Your task to perform on an android device: Go to CNN.com Image 0: 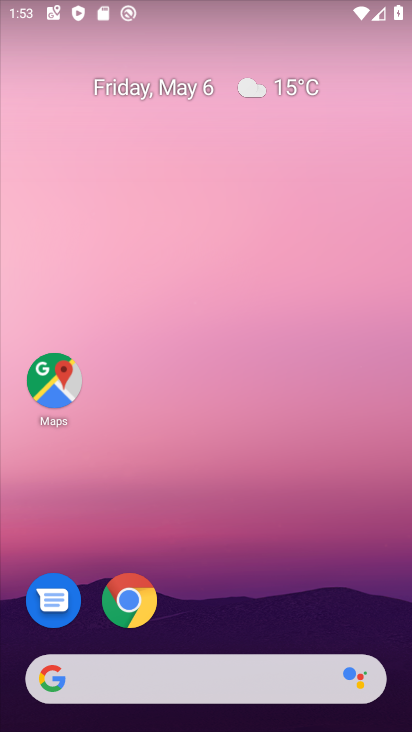
Step 0: drag from (341, 604) to (273, 29)
Your task to perform on an android device: Go to CNN.com Image 1: 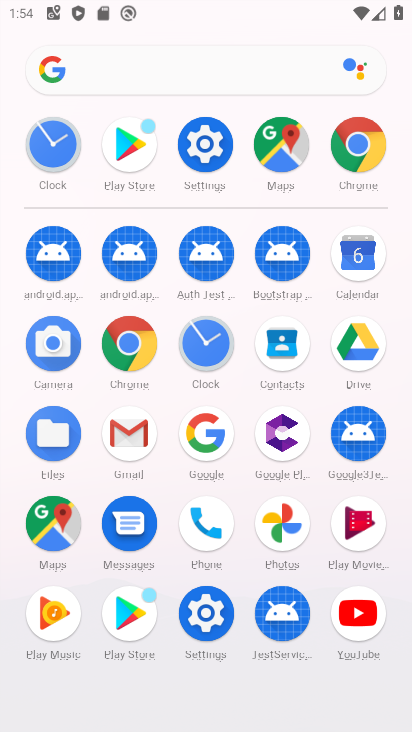
Step 1: click (361, 146)
Your task to perform on an android device: Go to CNN.com Image 2: 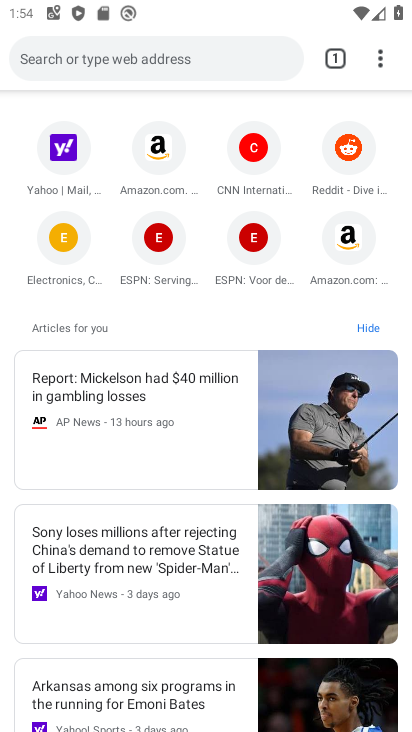
Step 2: click (143, 55)
Your task to perform on an android device: Go to CNN.com Image 3: 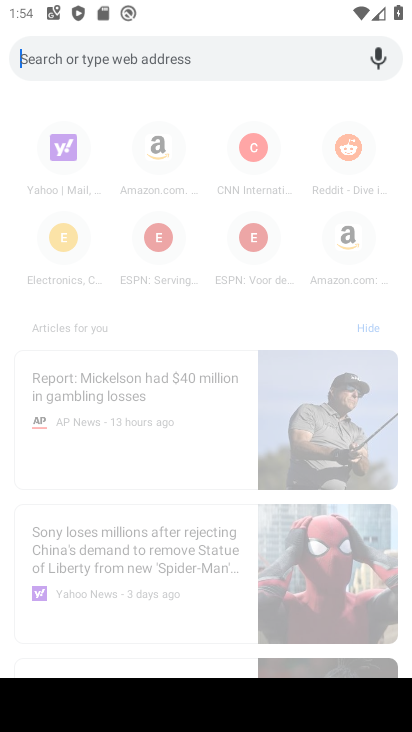
Step 3: type "cnn.com"
Your task to perform on an android device: Go to CNN.com Image 4: 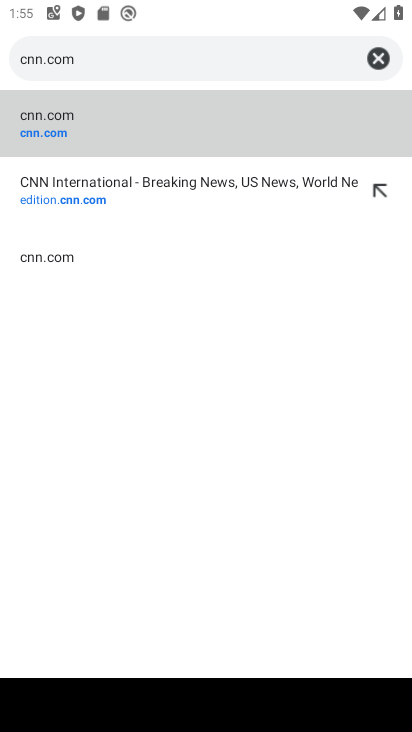
Step 4: click (176, 108)
Your task to perform on an android device: Go to CNN.com Image 5: 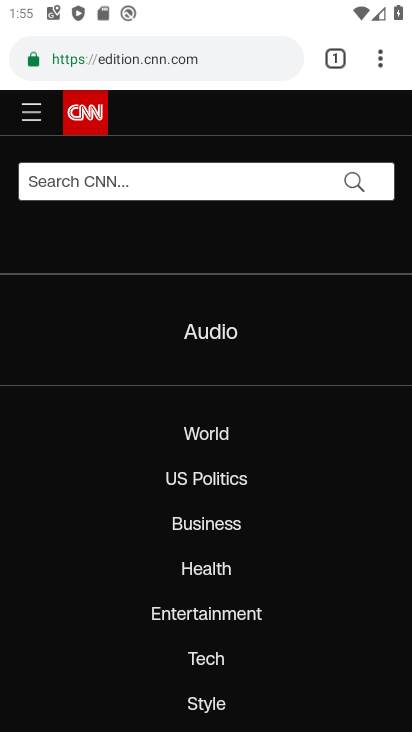
Step 5: task complete